Your task to perform on an android device: What's on my calendar today? Image 0: 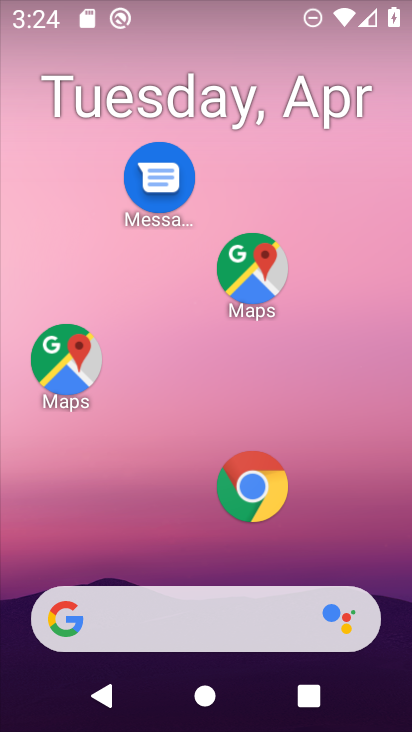
Step 0: drag from (207, 572) to (238, 208)
Your task to perform on an android device: What's on my calendar today? Image 1: 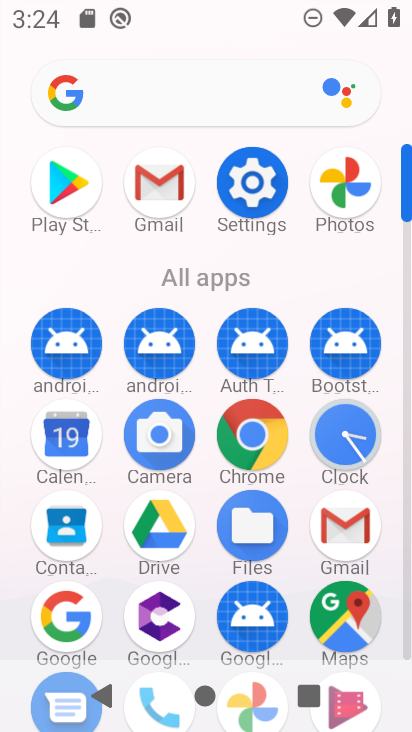
Step 1: click (71, 466)
Your task to perform on an android device: What's on my calendar today? Image 2: 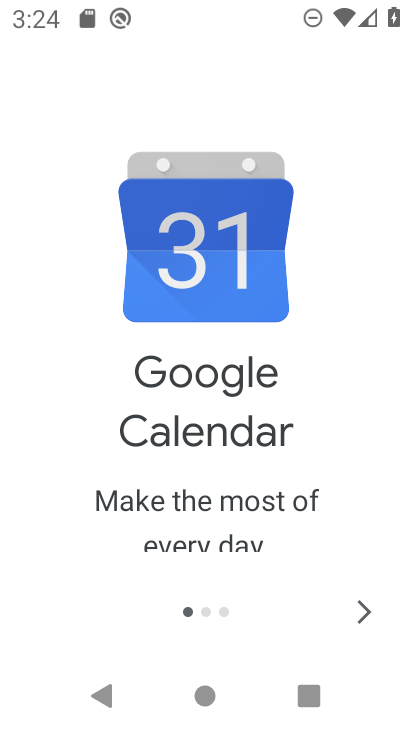
Step 2: click (365, 620)
Your task to perform on an android device: What's on my calendar today? Image 3: 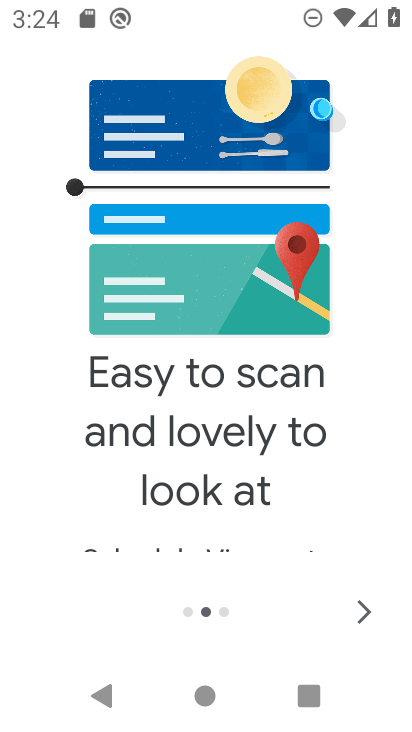
Step 3: click (364, 605)
Your task to perform on an android device: What's on my calendar today? Image 4: 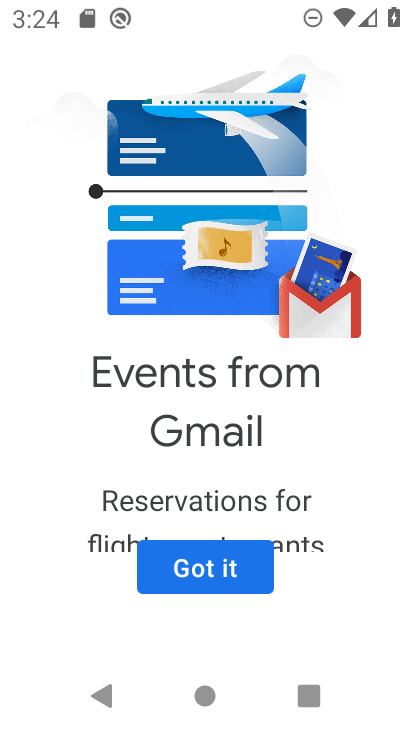
Step 4: click (199, 578)
Your task to perform on an android device: What's on my calendar today? Image 5: 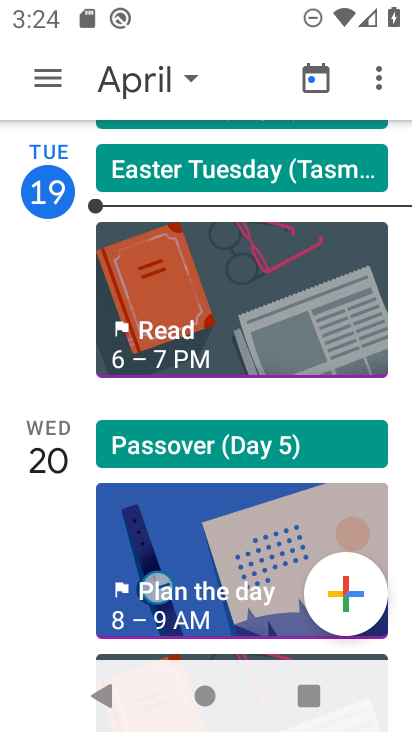
Step 5: click (212, 312)
Your task to perform on an android device: What's on my calendar today? Image 6: 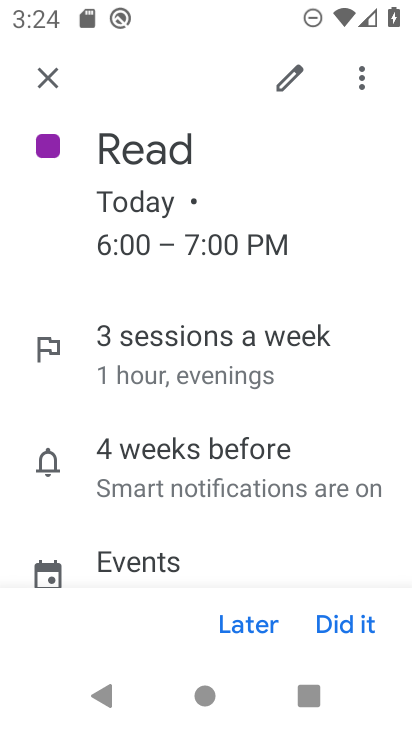
Step 6: drag from (215, 414) to (240, 169)
Your task to perform on an android device: What's on my calendar today? Image 7: 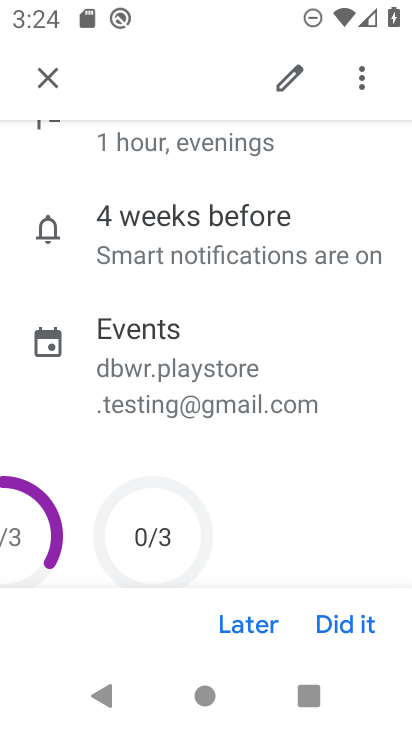
Step 7: drag from (258, 436) to (276, 202)
Your task to perform on an android device: What's on my calendar today? Image 8: 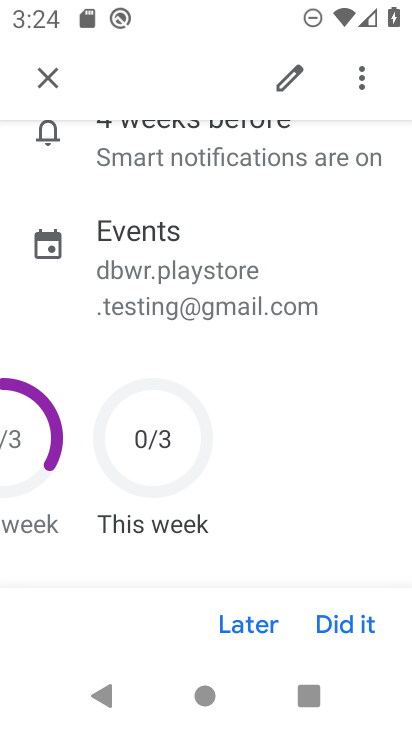
Step 8: click (252, 618)
Your task to perform on an android device: What's on my calendar today? Image 9: 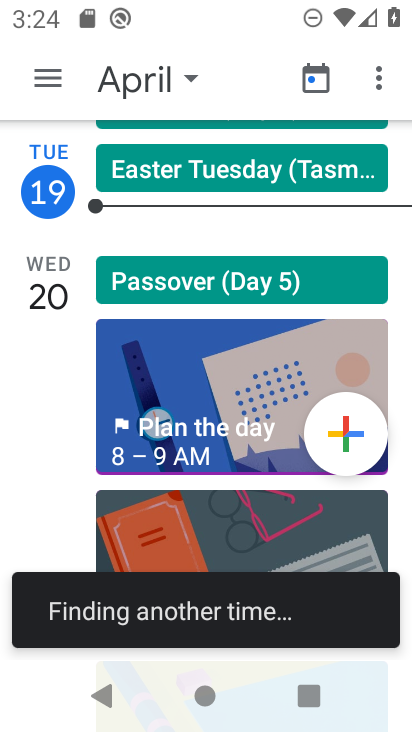
Step 9: task complete